Your task to perform on an android device: change the clock display to analog Image 0: 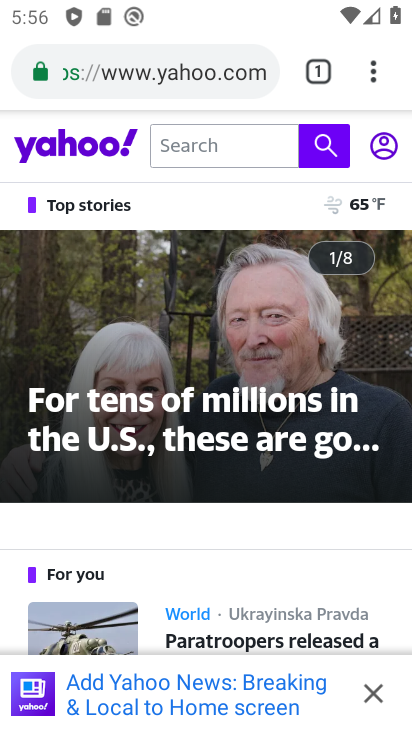
Step 0: press home button
Your task to perform on an android device: change the clock display to analog Image 1: 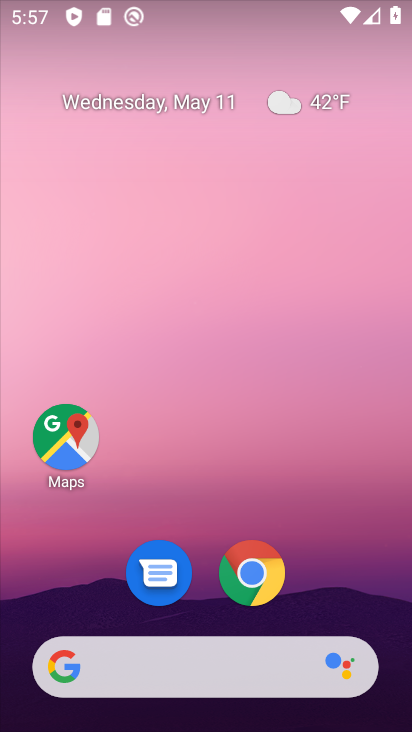
Step 1: drag from (311, 599) to (200, 293)
Your task to perform on an android device: change the clock display to analog Image 2: 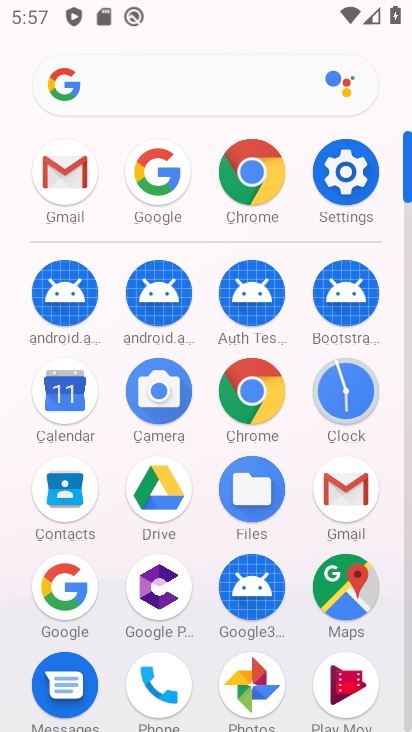
Step 2: click (339, 405)
Your task to perform on an android device: change the clock display to analog Image 3: 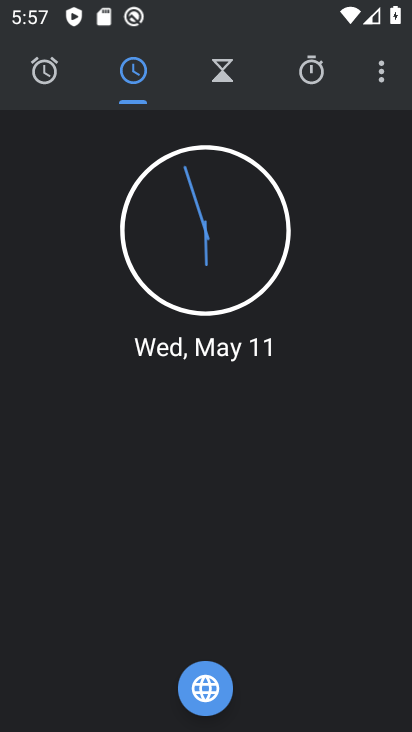
Step 3: click (384, 84)
Your task to perform on an android device: change the clock display to analog Image 4: 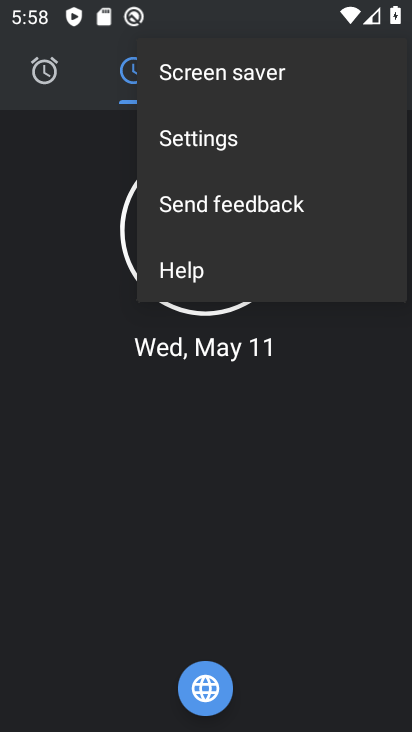
Step 4: click (231, 135)
Your task to perform on an android device: change the clock display to analog Image 5: 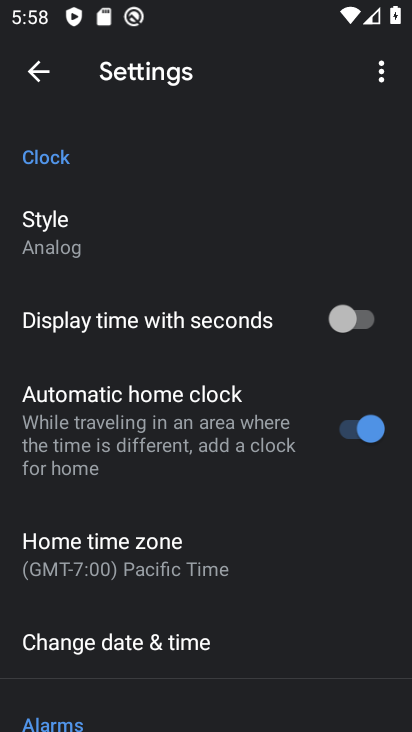
Step 5: task complete